Your task to perform on an android device: check out phone information Image 0: 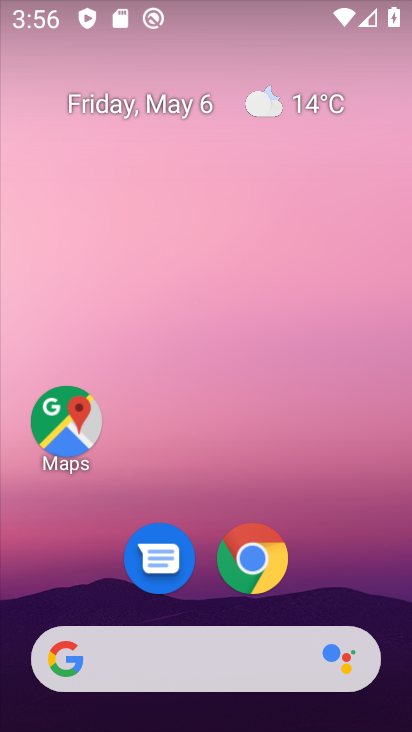
Step 0: drag from (286, 612) to (252, 27)
Your task to perform on an android device: check out phone information Image 1: 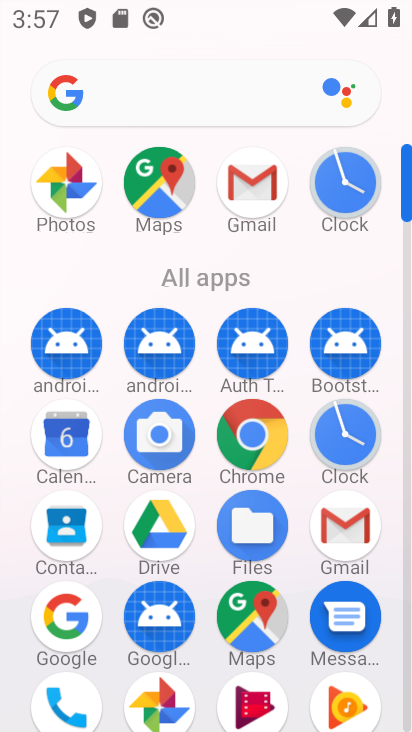
Step 1: drag from (294, 589) to (302, 206)
Your task to perform on an android device: check out phone information Image 2: 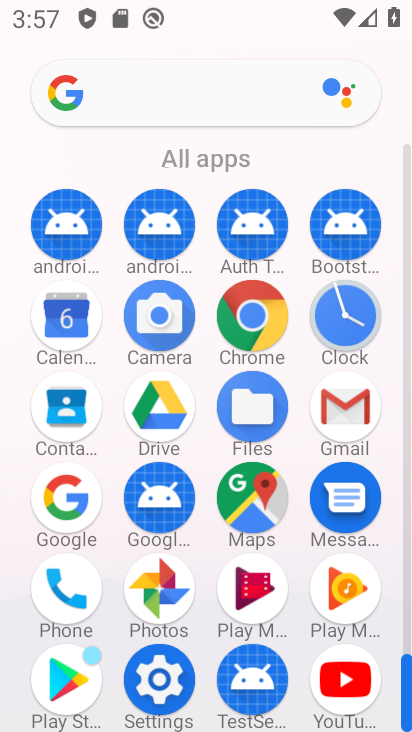
Step 2: click (161, 679)
Your task to perform on an android device: check out phone information Image 3: 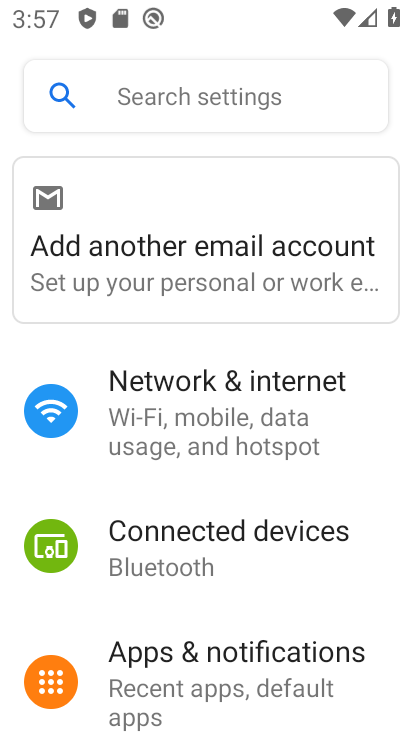
Step 3: drag from (223, 724) to (230, 235)
Your task to perform on an android device: check out phone information Image 4: 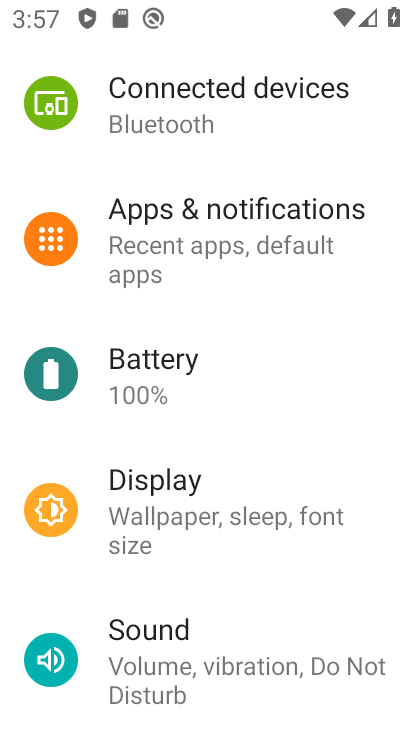
Step 4: drag from (240, 719) to (207, 115)
Your task to perform on an android device: check out phone information Image 5: 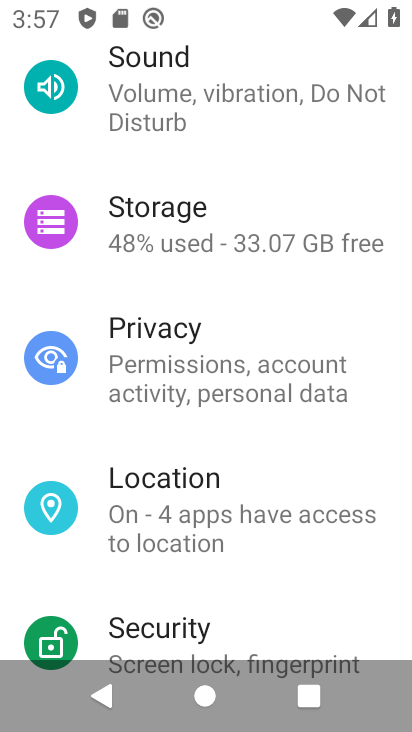
Step 5: drag from (232, 615) to (227, 21)
Your task to perform on an android device: check out phone information Image 6: 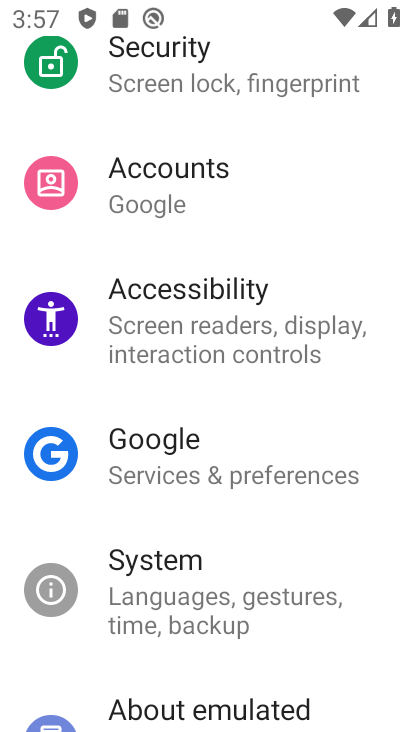
Step 6: drag from (212, 728) to (285, 298)
Your task to perform on an android device: check out phone information Image 7: 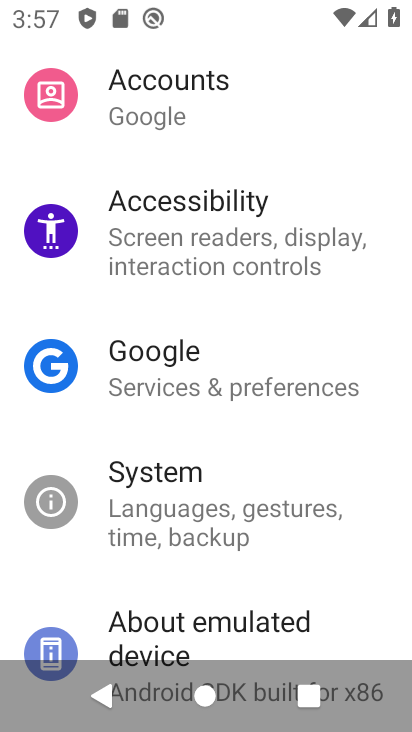
Step 7: click (257, 630)
Your task to perform on an android device: check out phone information Image 8: 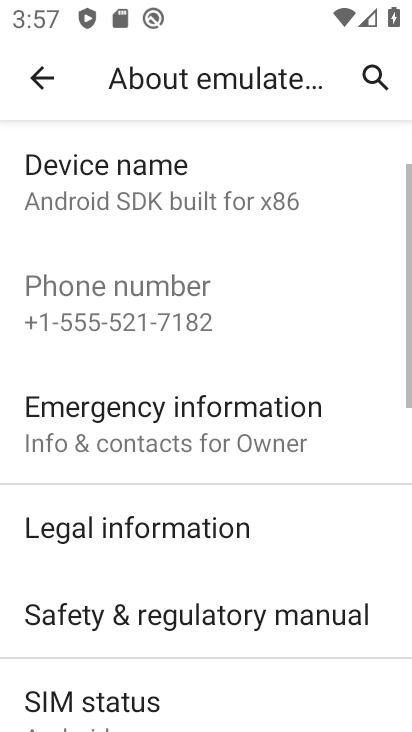
Step 8: task complete